Your task to perform on an android device: Clear all items from cart on walmart.com. Add "energizer triple a" to the cart on walmart.com, then select checkout. Image 0: 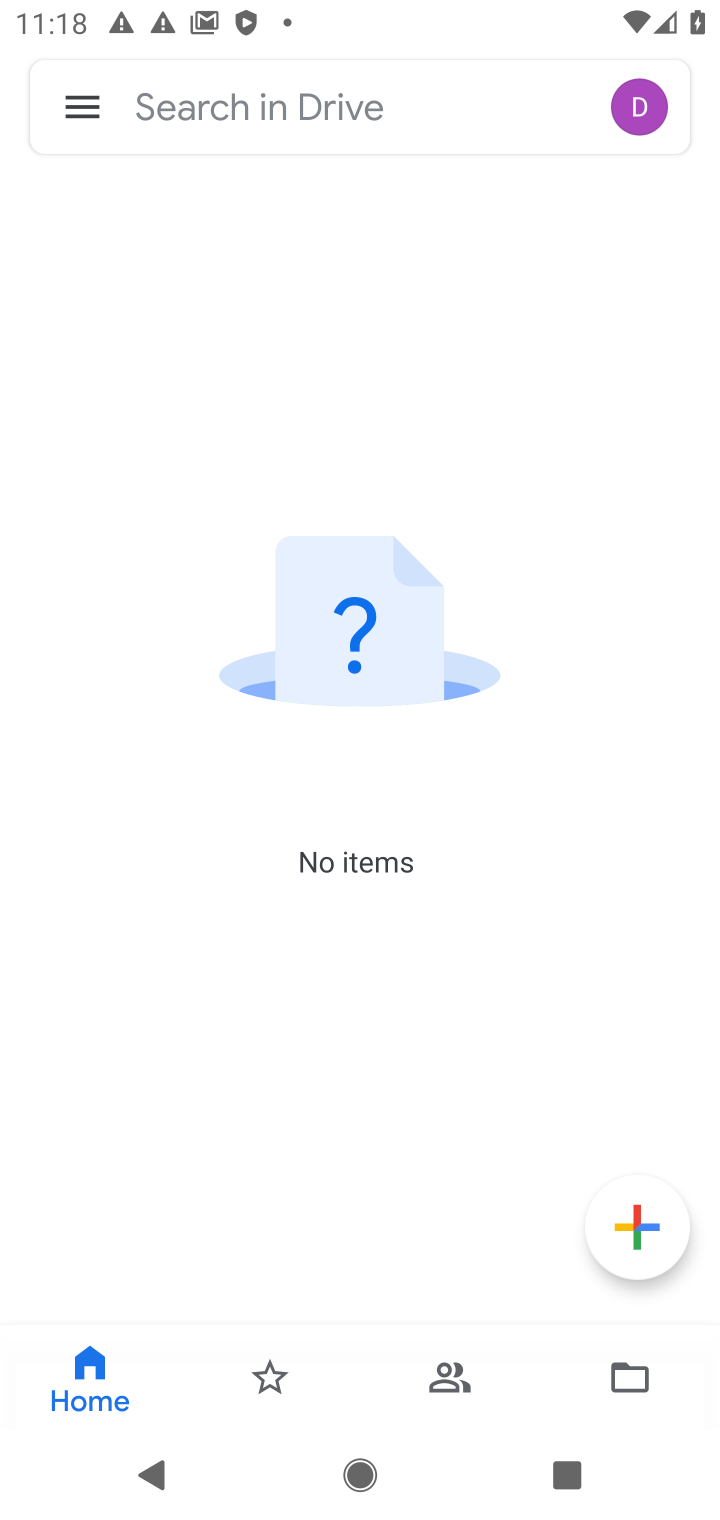
Step 0: press home button
Your task to perform on an android device: Clear all items from cart on walmart.com. Add "energizer triple a" to the cart on walmart.com, then select checkout. Image 1: 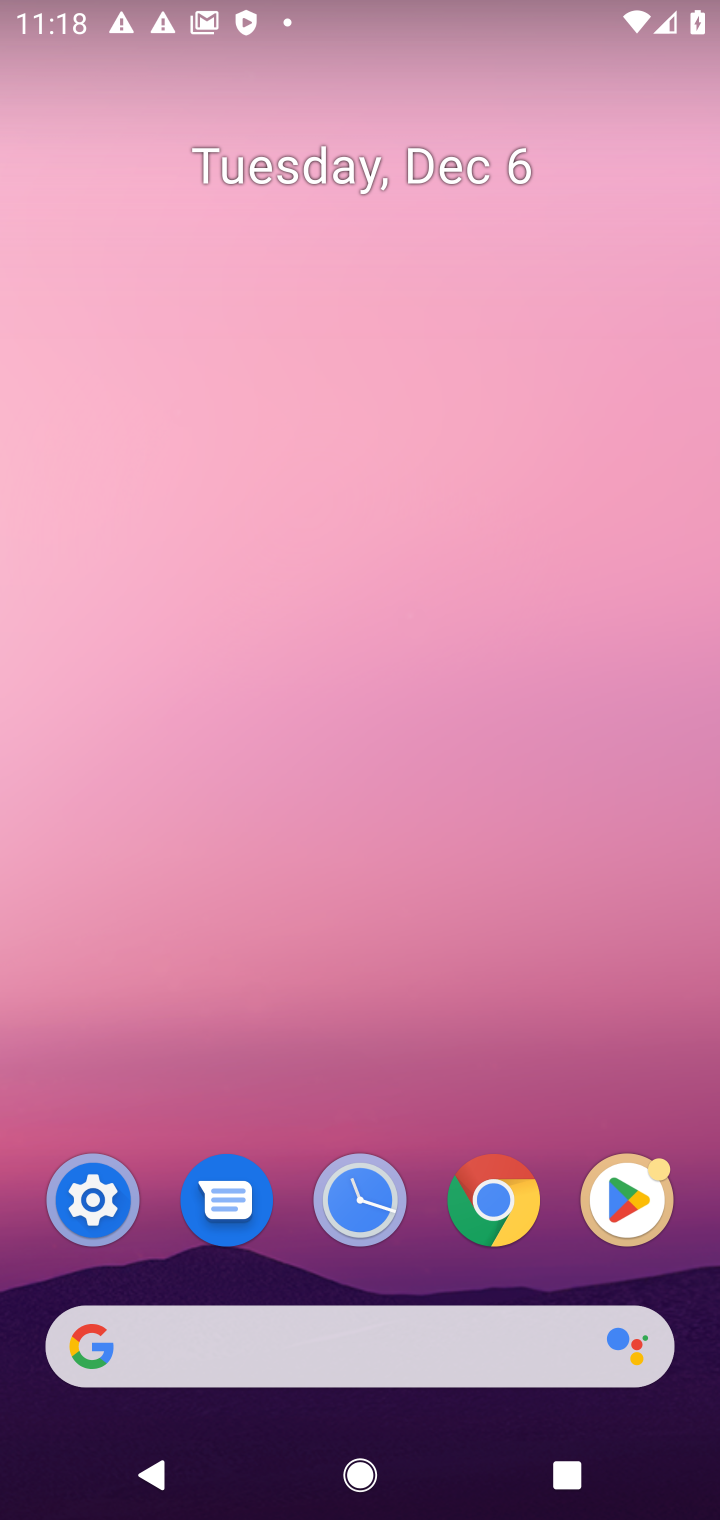
Step 1: click (343, 1335)
Your task to perform on an android device: Clear all items from cart on walmart.com. Add "energizer triple a" to the cart on walmart.com, then select checkout. Image 2: 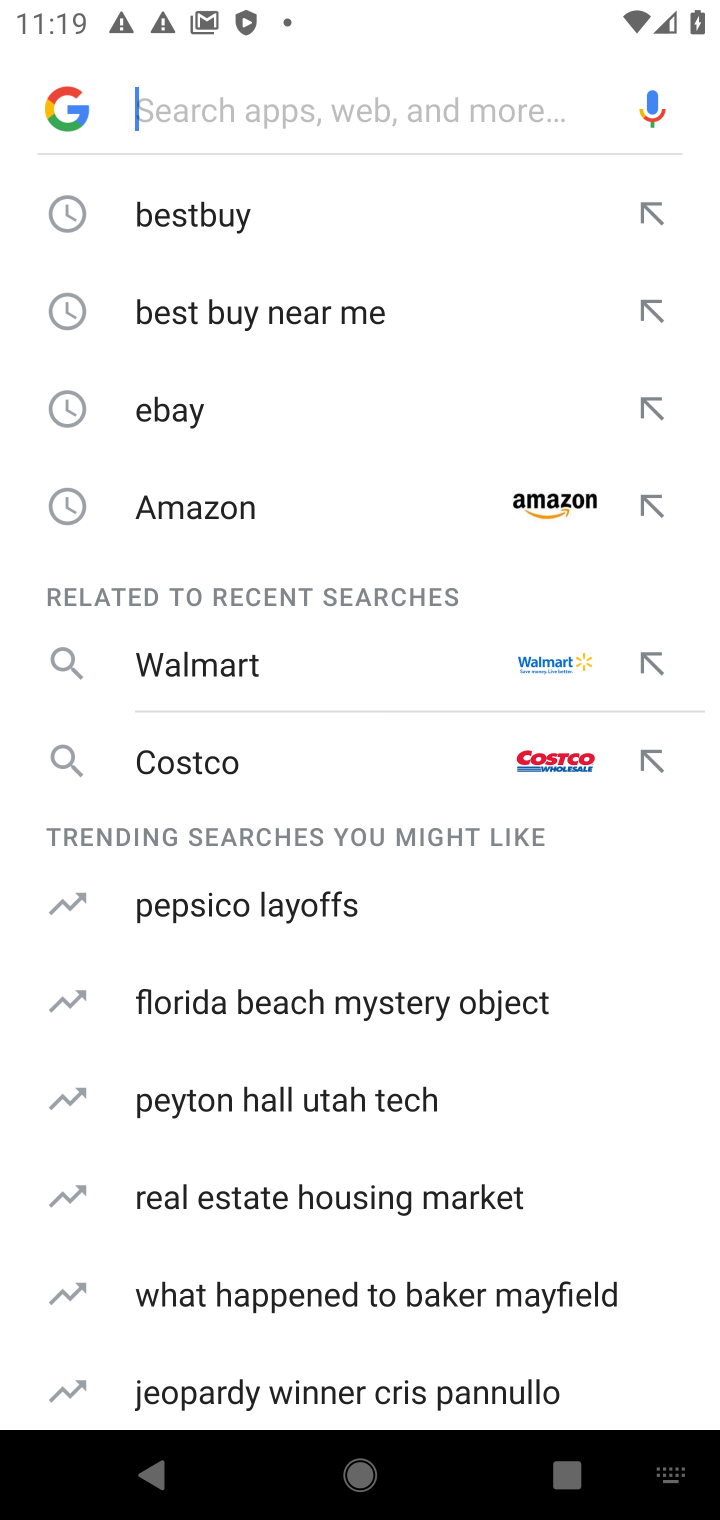
Step 2: type "walmart"
Your task to perform on an android device: Clear all items from cart on walmart.com. Add "energizer triple a" to the cart on walmart.com, then select checkout. Image 3: 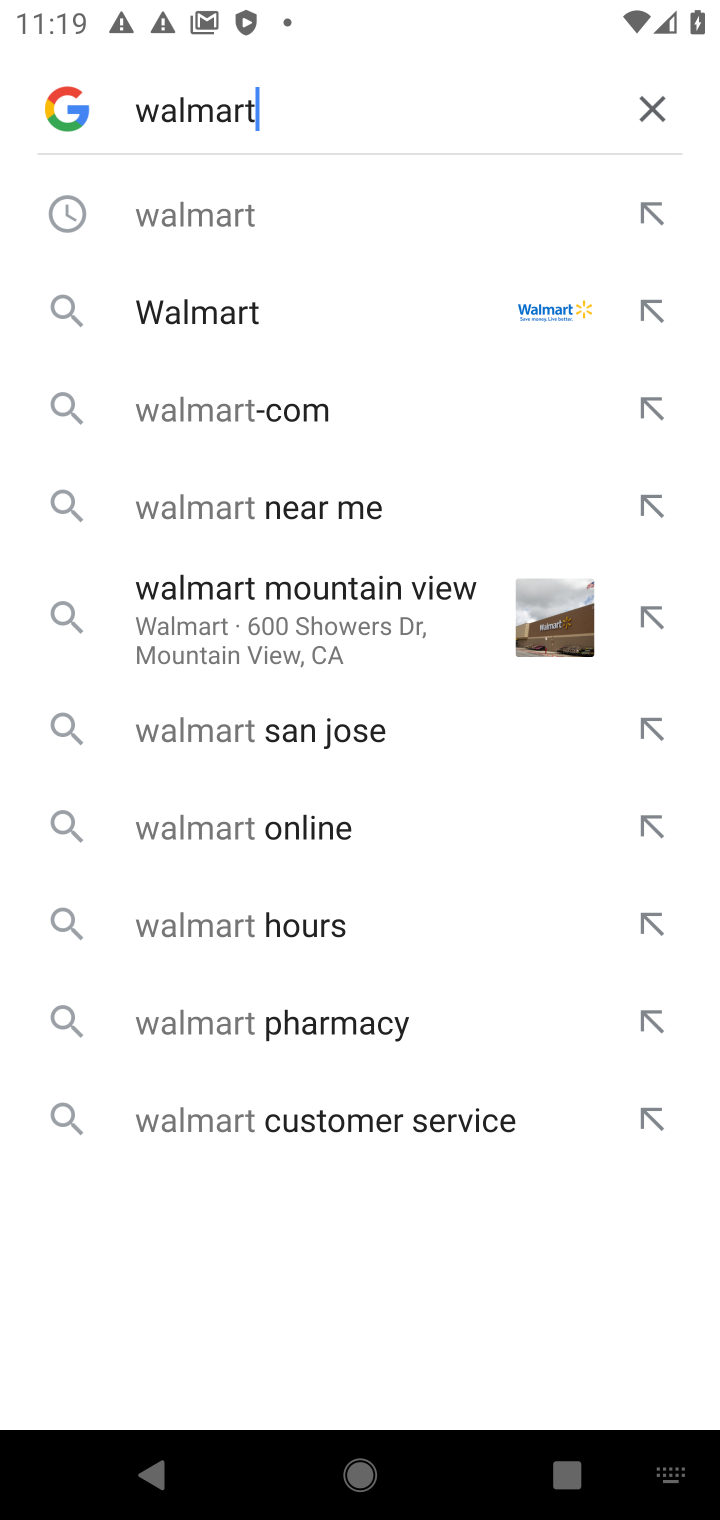
Step 3: click (232, 319)
Your task to perform on an android device: Clear all items from cart on walmart.com. Add "energizer triple a" to the cart on walmart.com, then select checkout. Image 4: 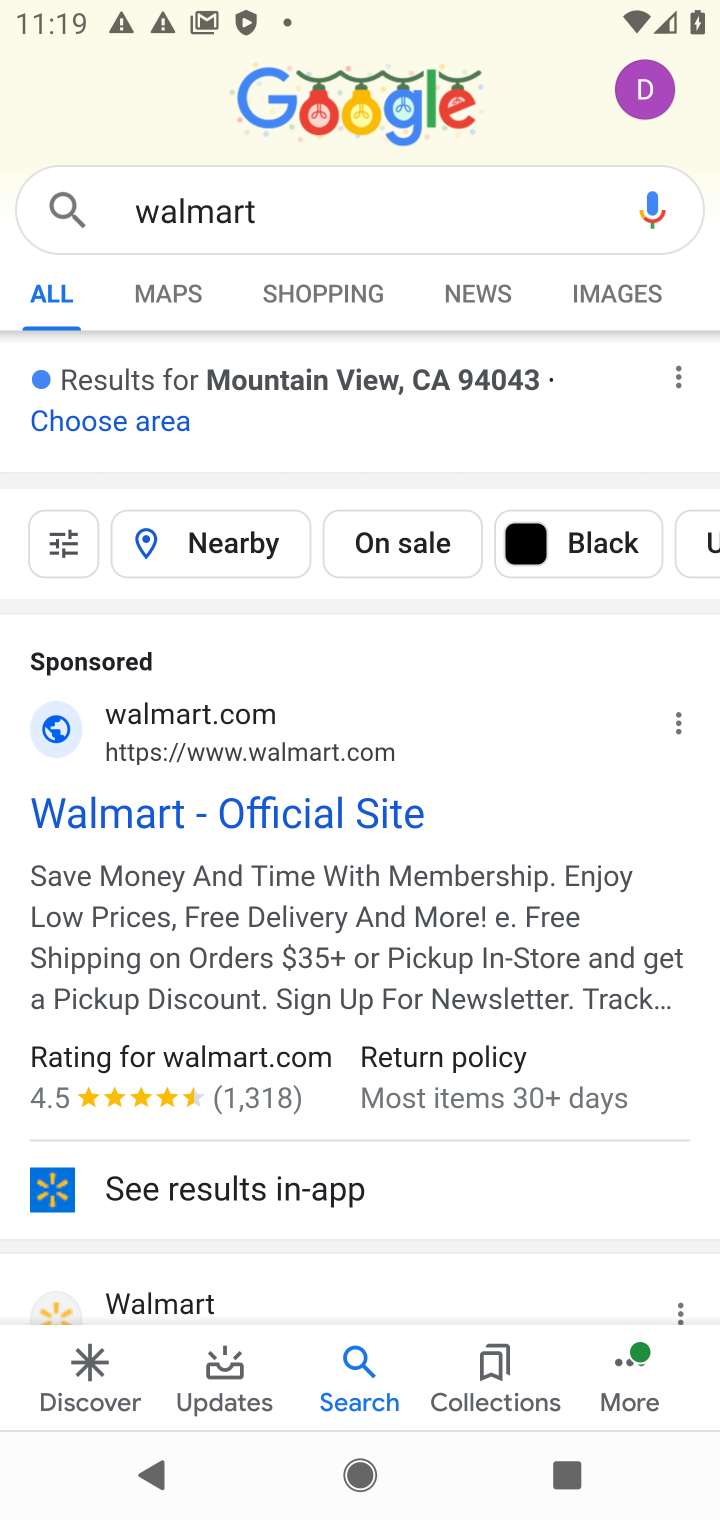
Step 4: click (186, 795)
Your task to perform on an android device: Clear all items from cart on walmart.com. Add "energizer triple a" to the cart on walmart.com, then select checkout. Image 5: 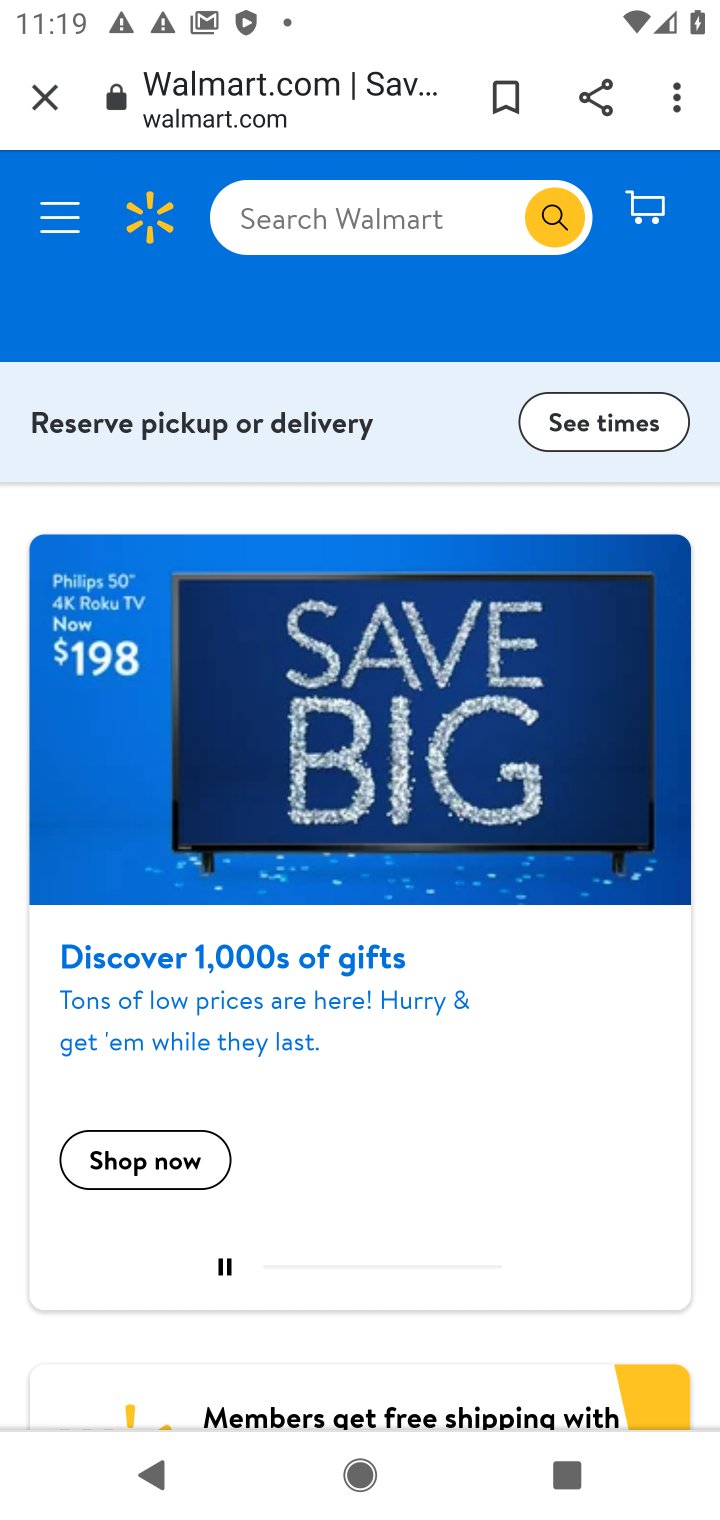
Step 5: click (270, 216)
Your task to perform on an android device: Clear all items from cart on walmart.com. Add "energizer triple a" to the cart on walmart.com, then select checkout. Image 6: 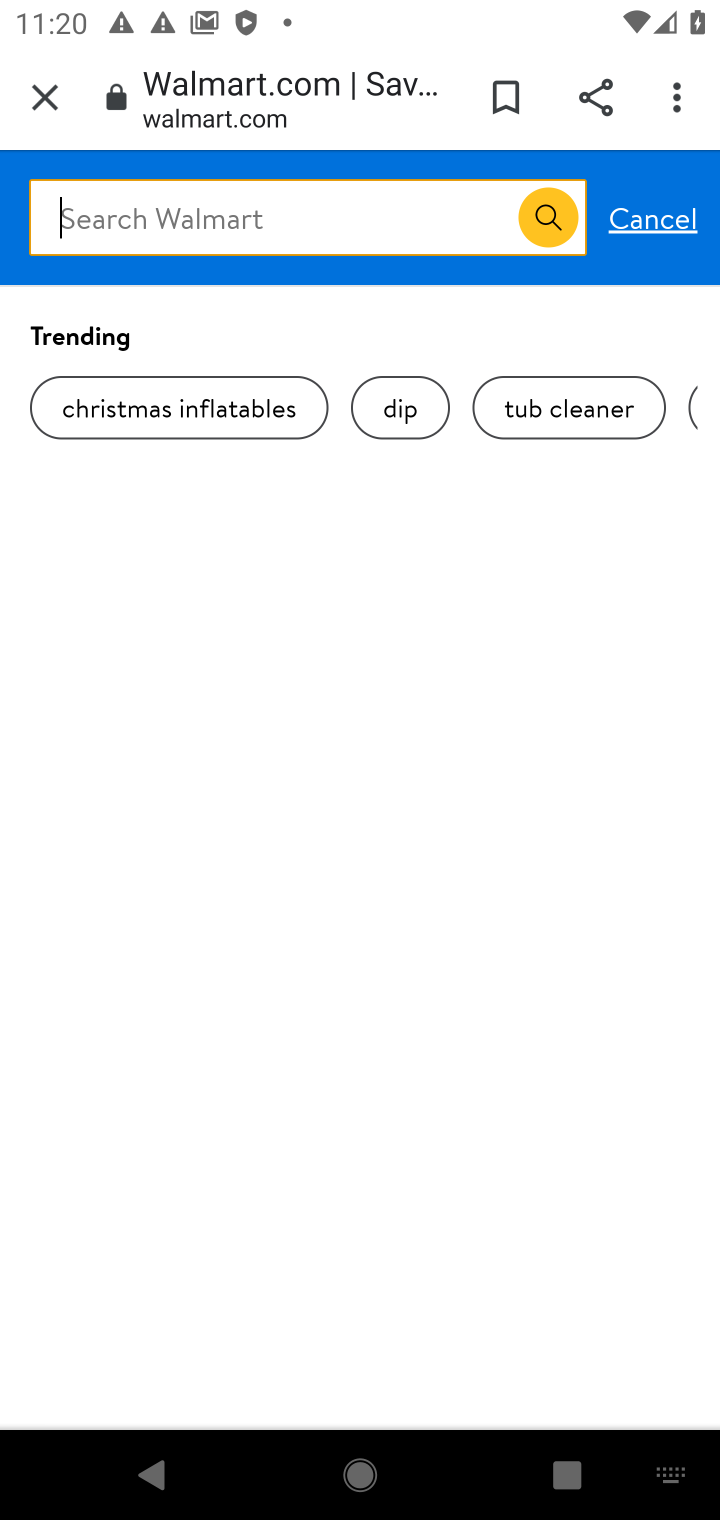
Step 6: type "energier"
Your task to perform on an android device: Clear all items from cart on walmart.com. Add "energizer triple a" to the cart on walmart.com, then select checkout. Image 7: 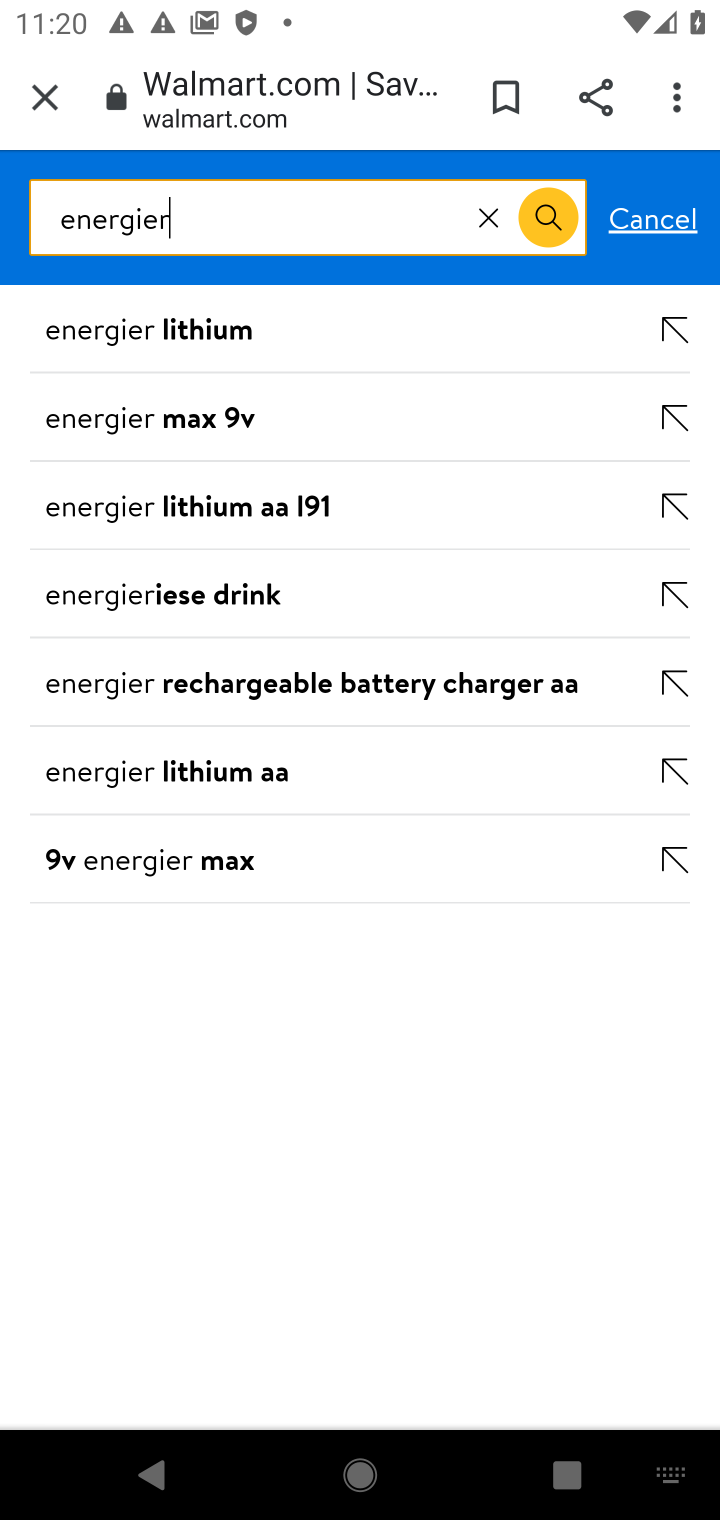
Step 7: click (337, 691)
Your task to perform on an android device: Clear all items from cart on walmart.com. Add "energizer triple a" to the cart on walmart.com, then select checkout. Image 8: 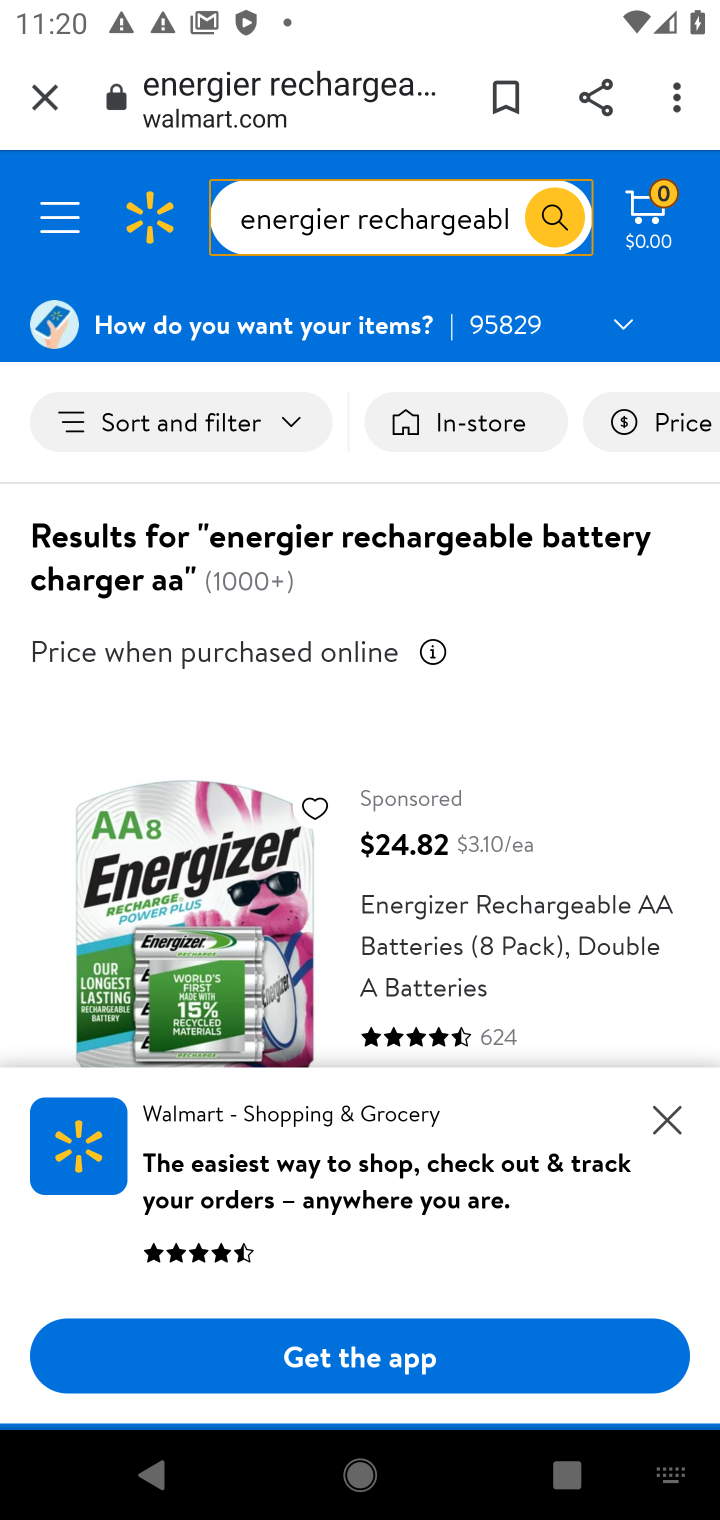
Step 8: click (661, 1126)
Your task to perform on an android device: Clear all items from cart on walmart.com. Add "energizer triple a" to the cart on walmart.com, then select checkout. Image 9: 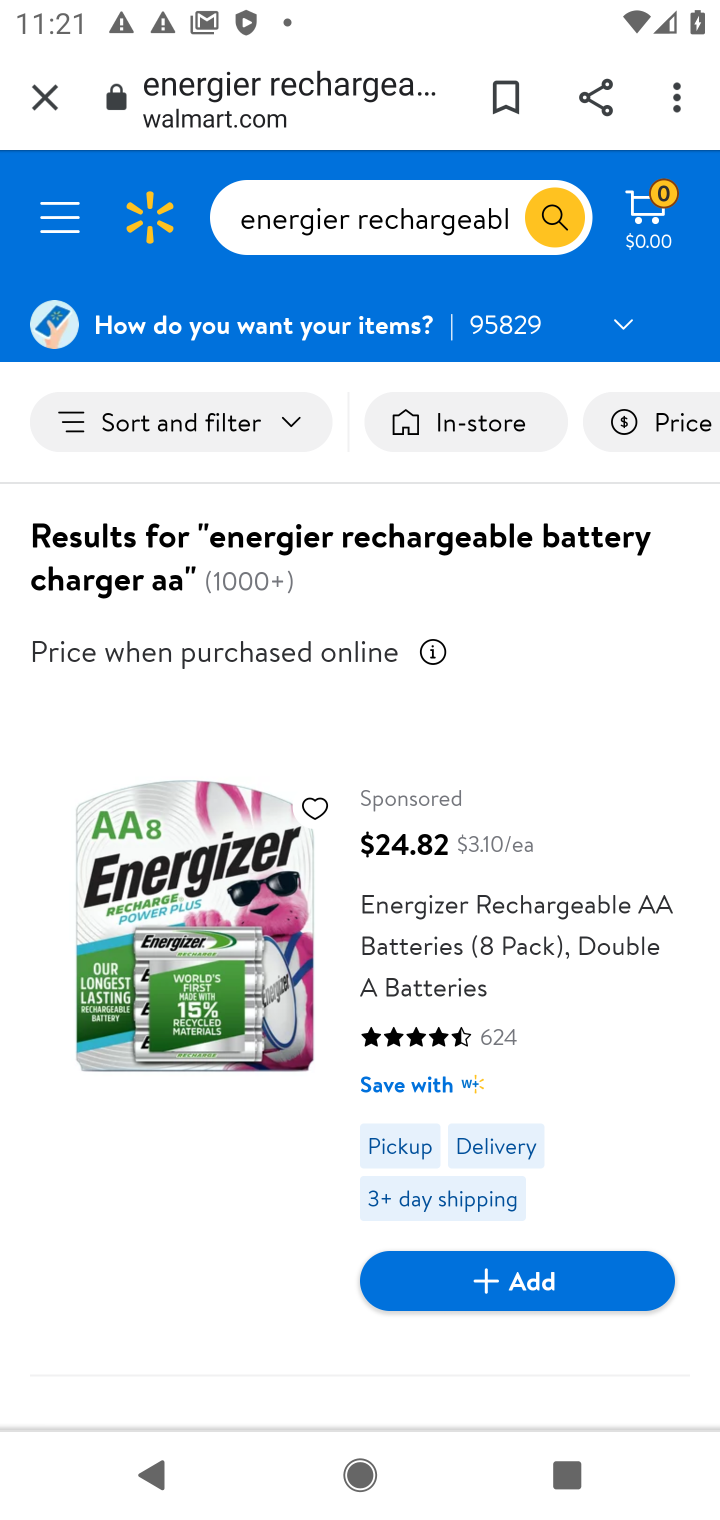
Step 9: click (471, 1257)
Your task to perform on an android device: Clear all items from cart on walmart.com. Add "energizer triple a" to the cart on walmart.com, then select checkout. Image 10: 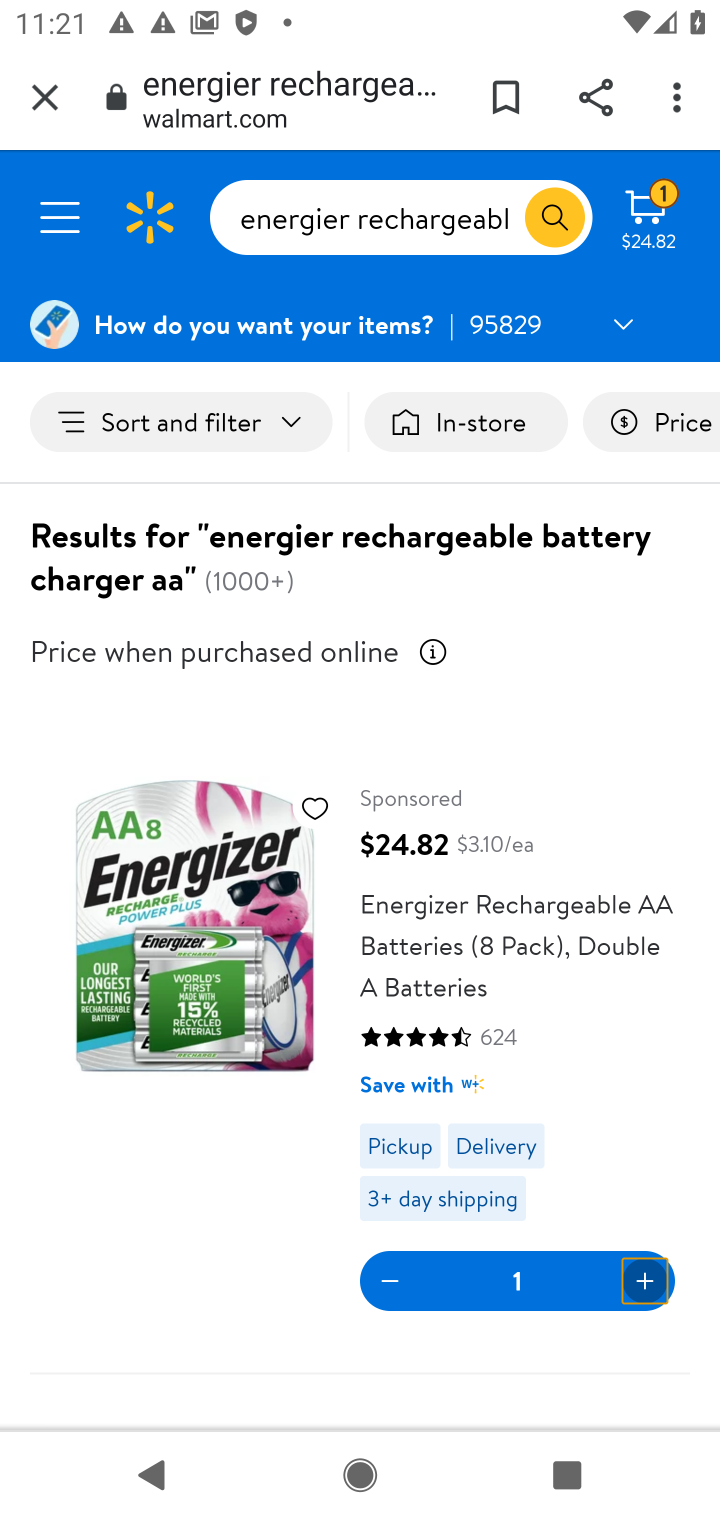
Step 10: task complete